Your task to perform on an android device: Show me popular games on the Play Store Image 0: 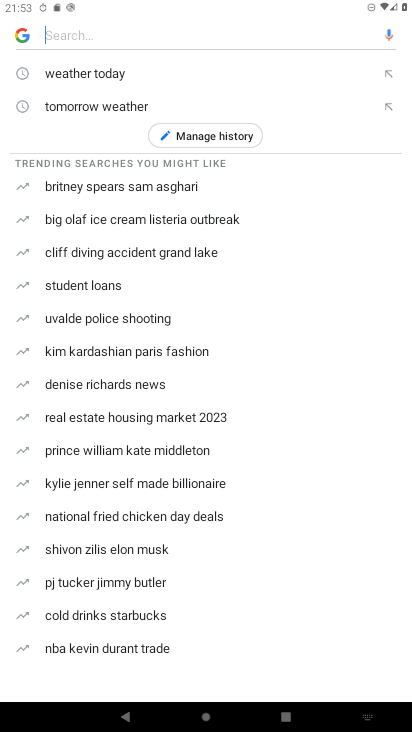
Step 0: press home button
Your task to perform on an android device: Show me popular games on the Play Store Image 1: 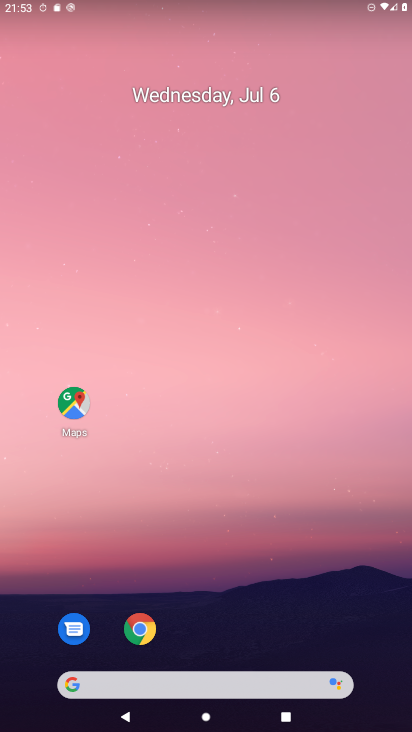
Step 1: click (244, 695)
Your task to perform on an android device: Show me popular games on the Play Store Image 2: 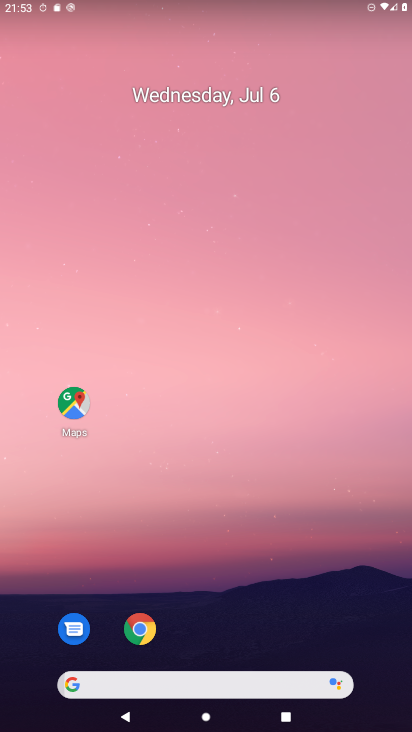
Step 2: drag from (199, 245) to (193, 155)
Your task to perform on an android device: Show me popular games on the Play Store Image 3: 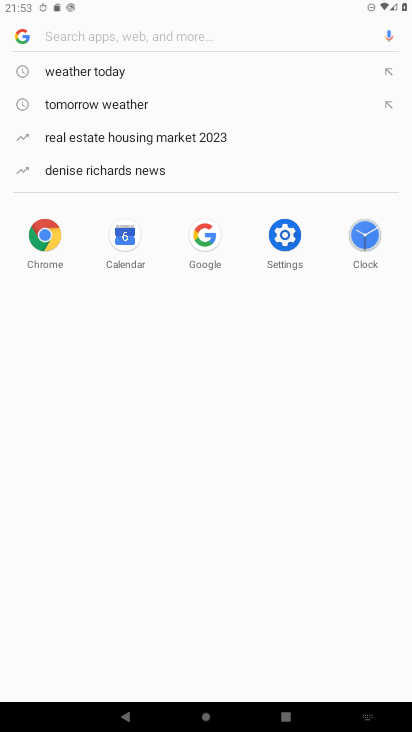
Step 3: press home button
Your task to perform on an android device: Show me popular games on the Play Store Image 4: 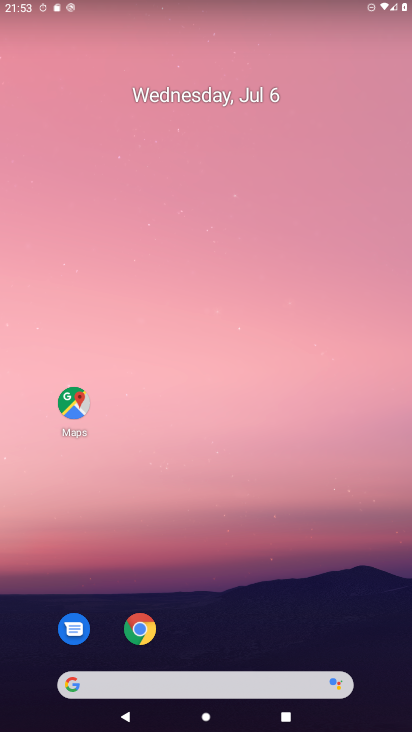
Step 4: drag from (243, 717) to (196, 175)
Your task to perform on an android device: Show me popular games on the Play Store Image 5: 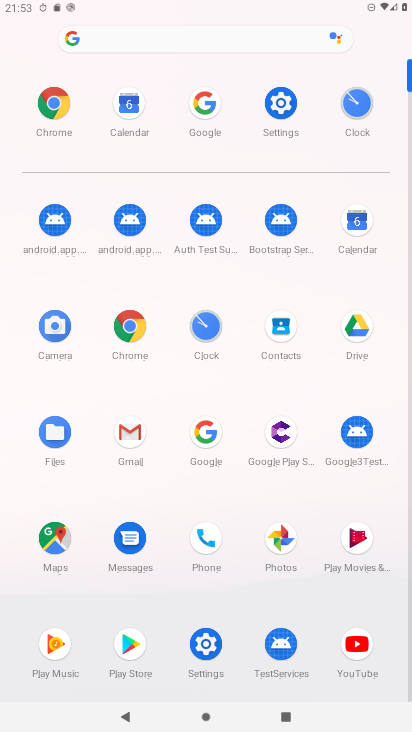
Step 5: click (129, 644)
Your task to perform on an android device: Show me popular games on the Play Store Image 6: 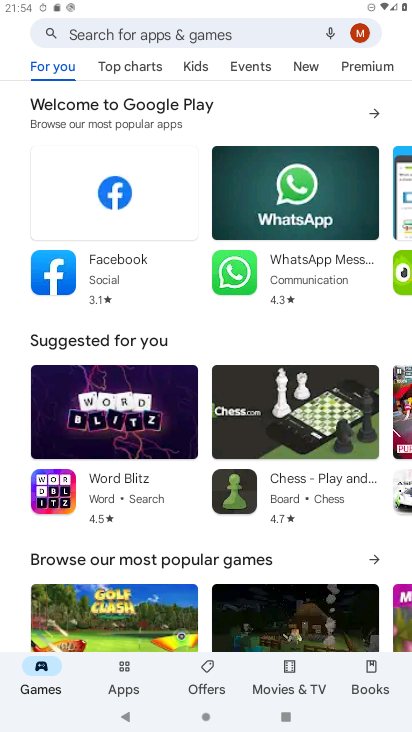
Step 6: click (374, 561)
Your task to perform on an android device: Show me popular games on the Play Store Image 7: 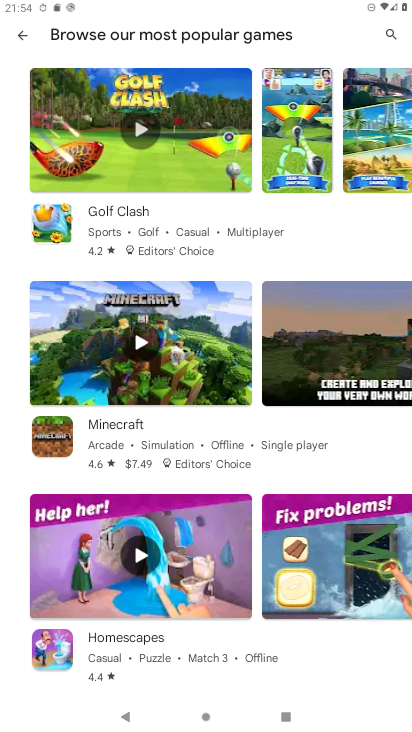
Step 7: task complete